Your task to perform on an android device: Is it going to rain today? Image 0: 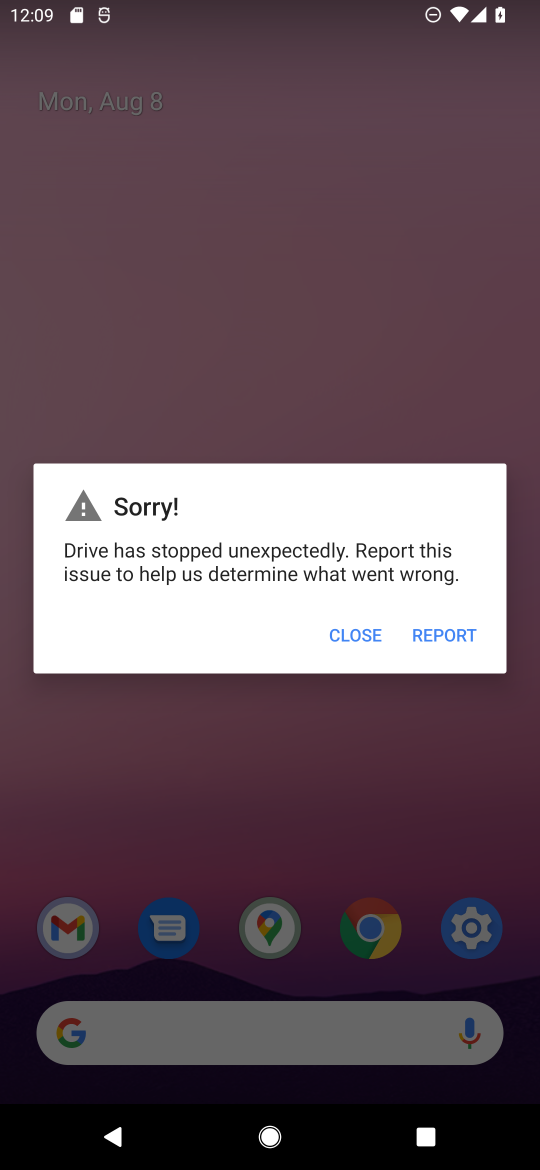
Step 0: press home button
Your task to perform on an android device: Is it going to rain today? Image 1: 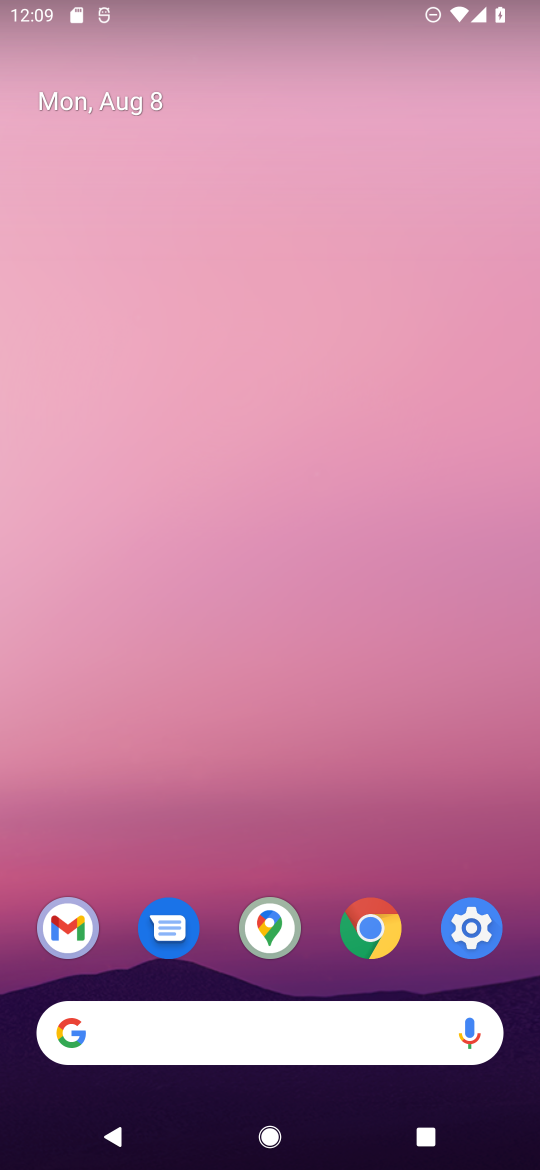
Step 1: drag from (331, 922) to (260, 297)
Your task to perform on an android device: Is it going to rain today? Image 2: 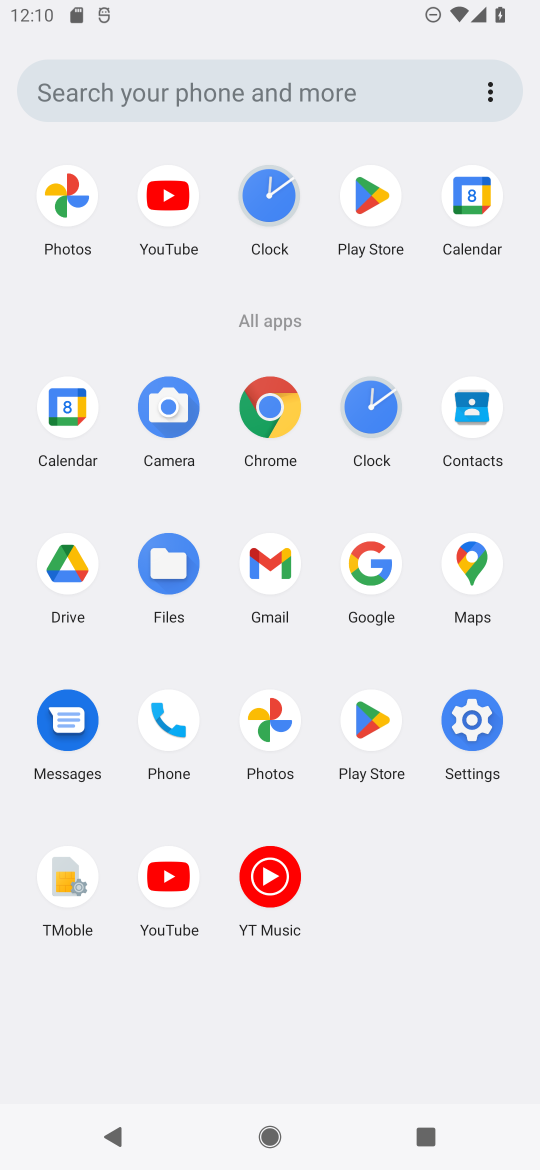
Step 2: click (263, 77)
Your task to perform on an android device: Is it going to rain today? Image 3: 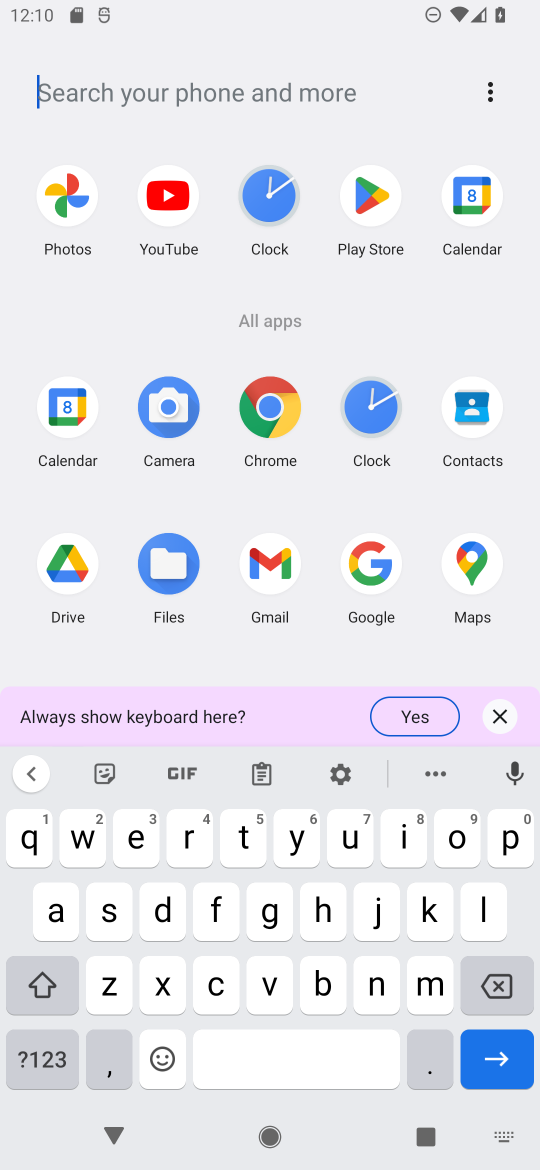
Step 3: click (396, 839)
Your task to perform on an android device: Is it going to rain today? Image 4: 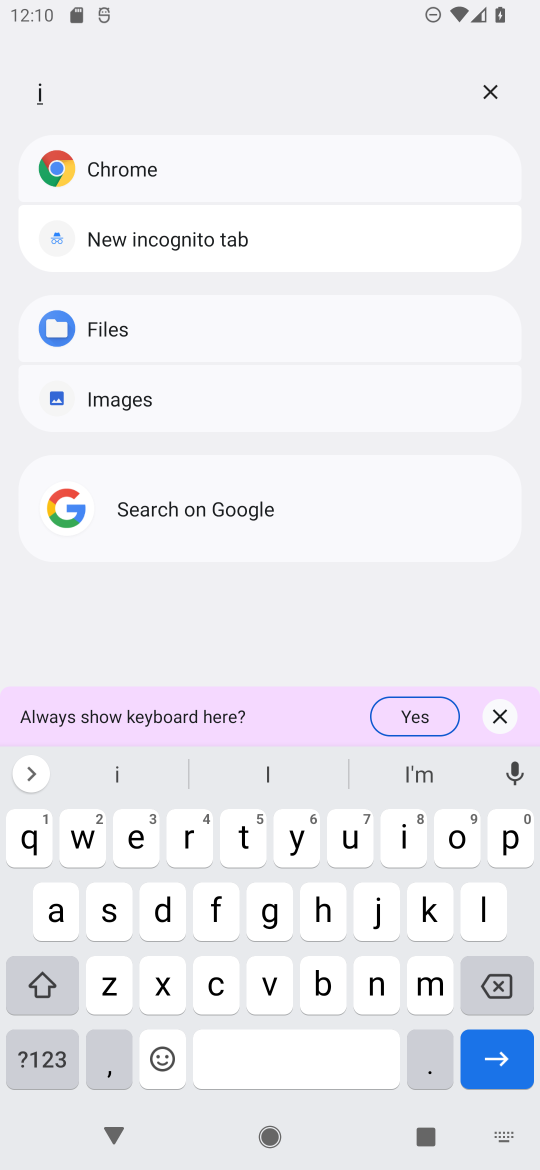
Step 4: click (103, 914)
Your task to perform on an android device: Is it going to rain today? Image 5: 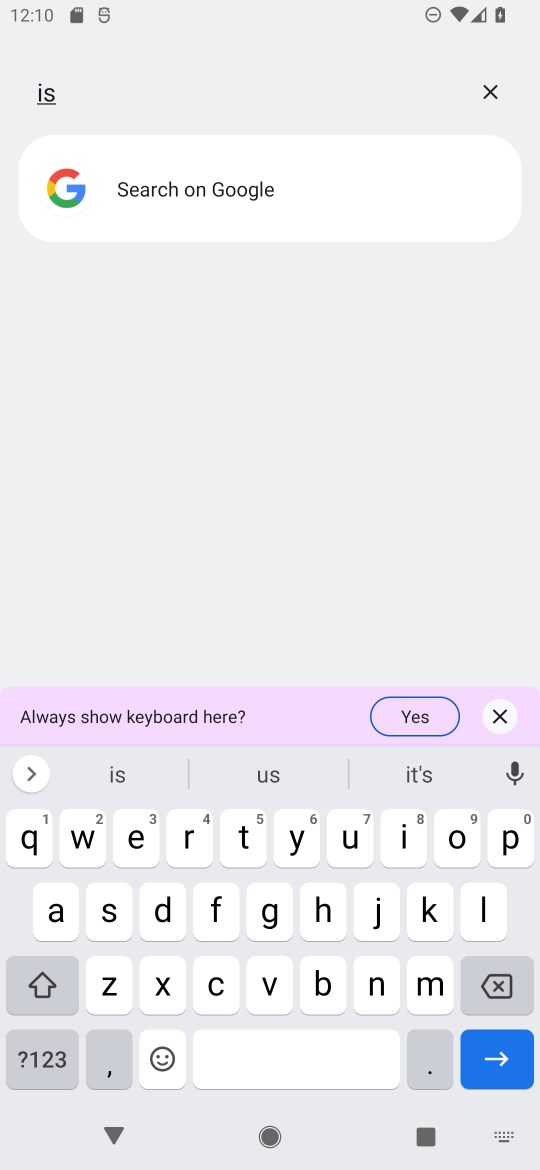
Step 5: click (225, 203)
Your task to perform on an android device: Is it going to rain today? Image 6: 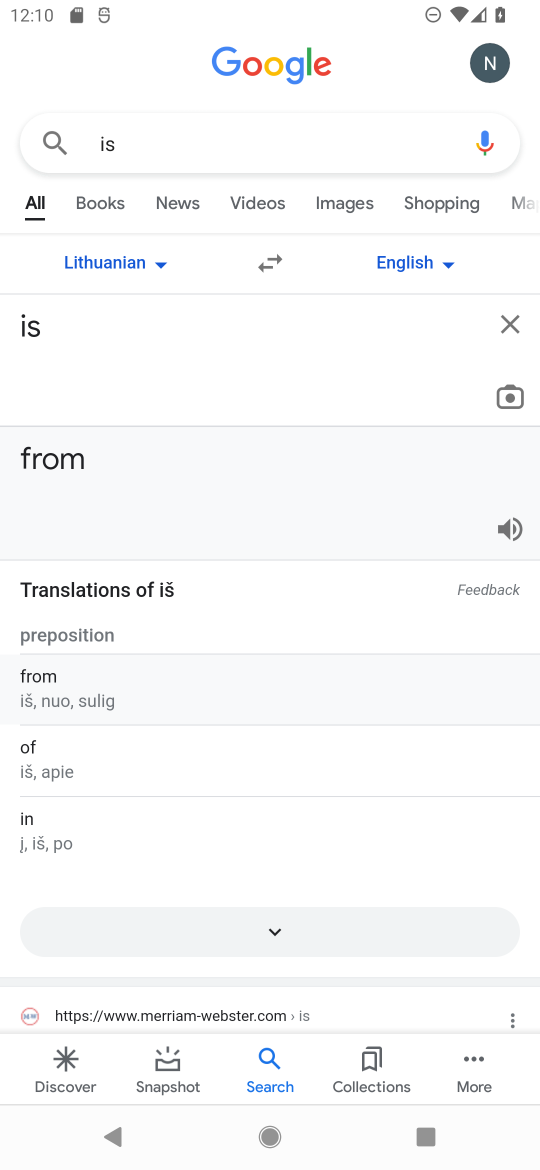
Step 6: click (292, 149)
Your task to perform on an android device: Is it going to rain today? Image 7: 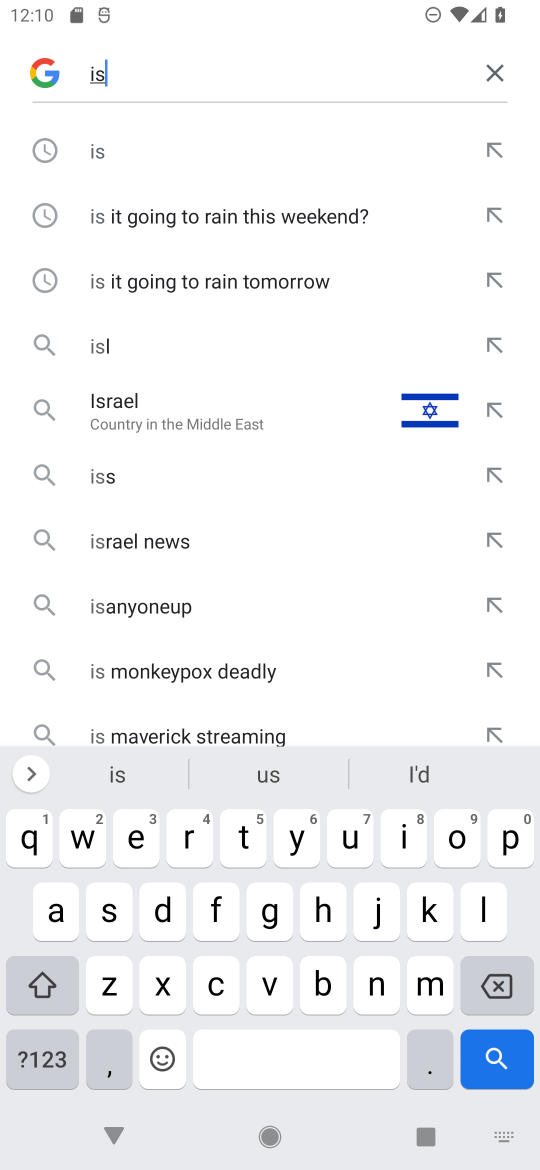
Step 7: click (134, 772)
Your task to perform on an android device: Is it going to rain today? Image 8: 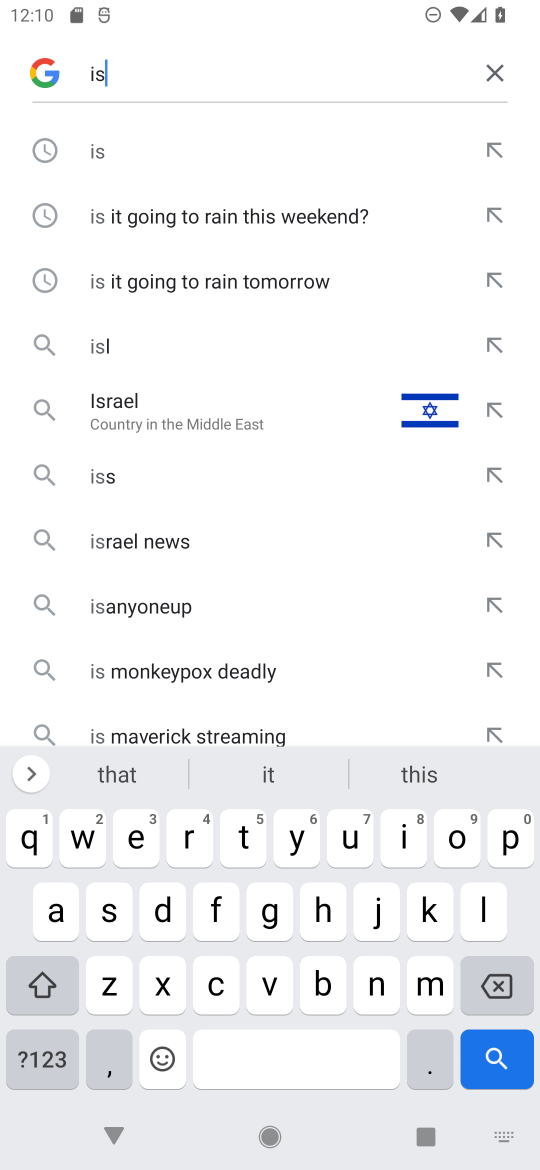
Step 8: click (282, 1045)
Your task to perform on an android device: Is it going to rain today? Image 9: 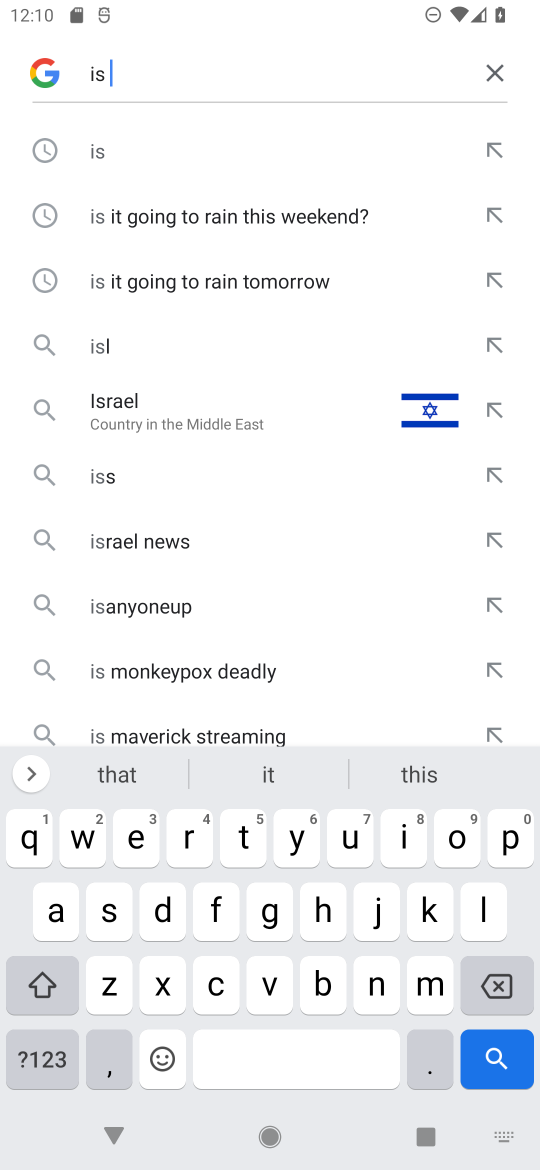
Step 9: click (399, 839)
Your task to perform on an android device: Is it going to rain today? Image 10: 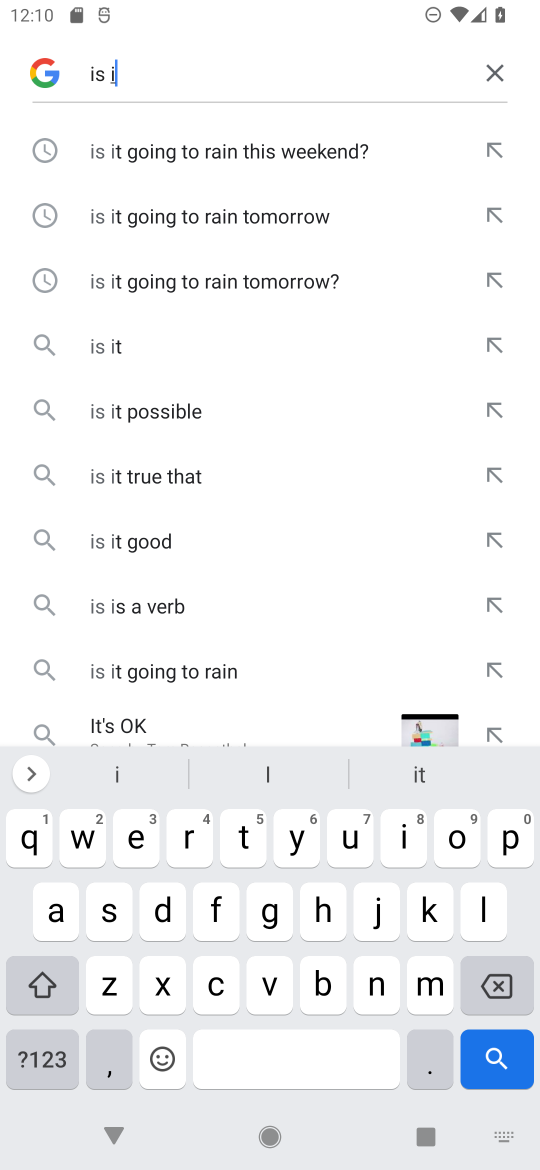
Step 10: click (199, 679)
Your task to perform on an android device: Is it going to rain today? Image 11: 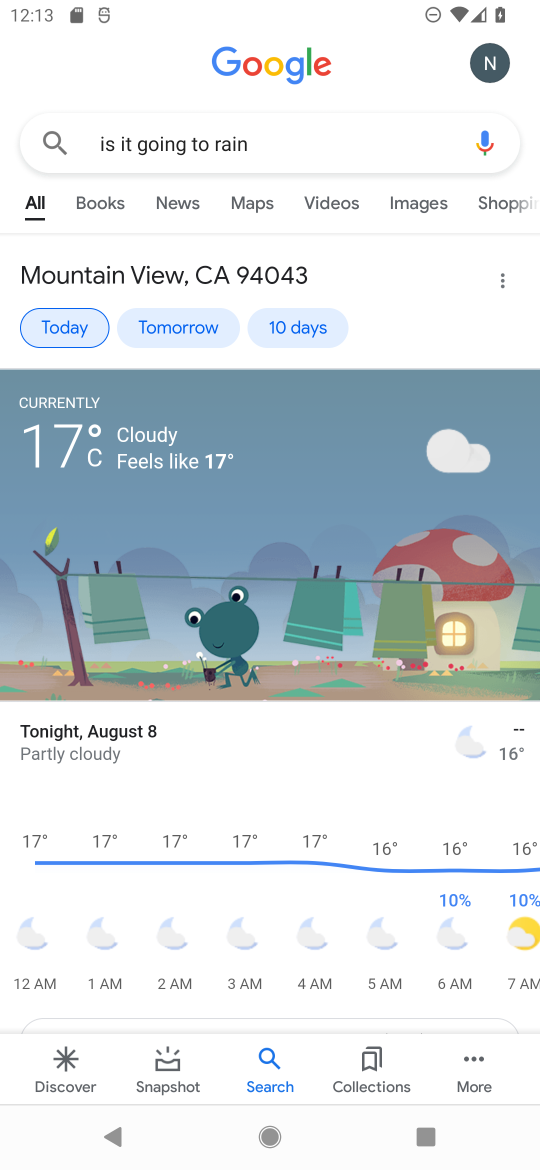
Step 11: task complete